Your task to perform on an android device: see creations saved in the google photos Image 0: 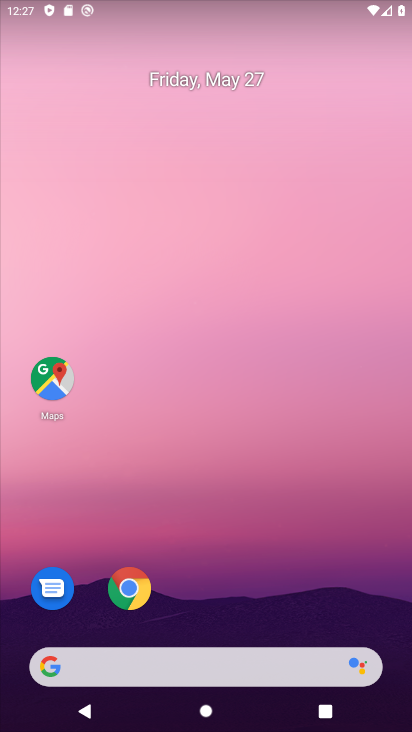
Step 0: drag from (226, 616) to (303, 701)
Your task to perform on an android device: see creations saved in the google photos Image 1: 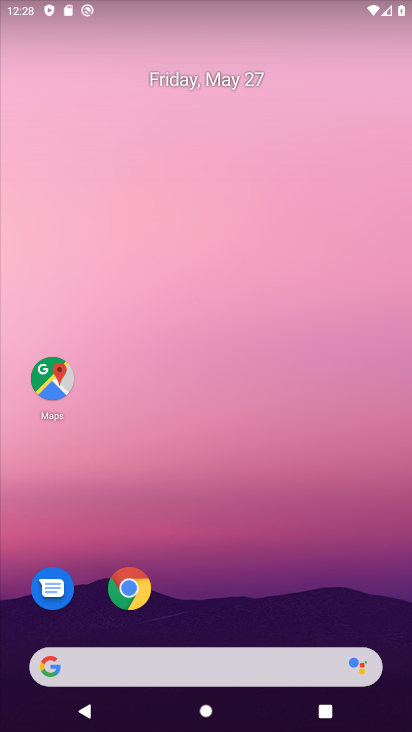
Step 1: drag from (259, 620) to (237, 29)
Your task to perform on an android device: see creations saved in the google photos Image 2: 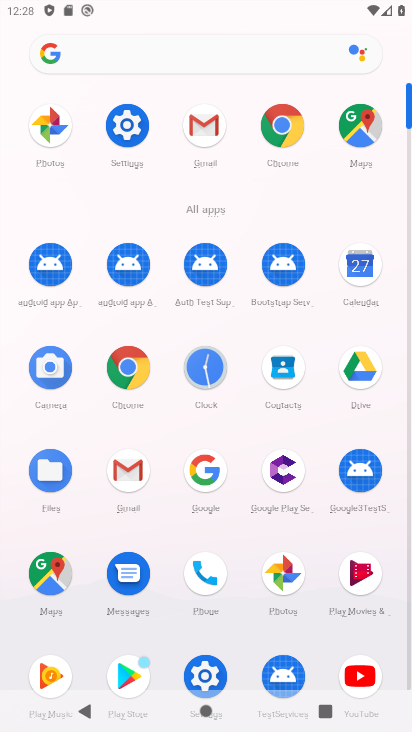
Step 2: click (282, 571)
Your task to perform on an android device: see creations saved in the google photos Image 3: 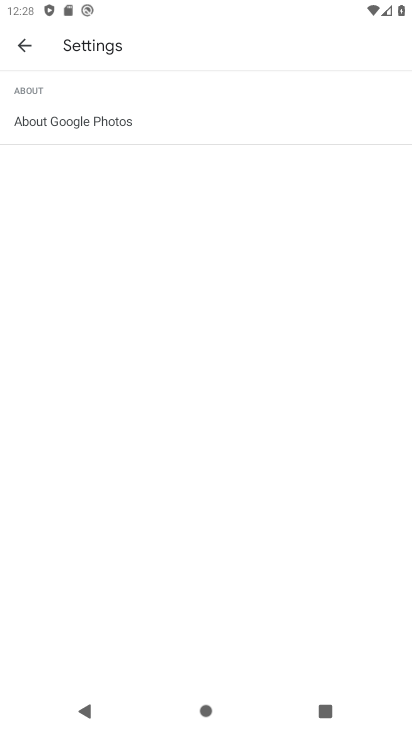
Step 3: click (24, 23)
Your task to perform on an android device: see creations saved in the google photos Image 4: 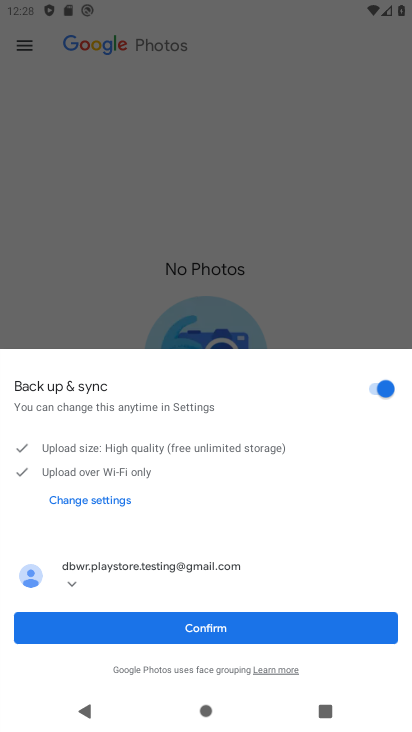
Step 4: click (192, 629)
Your task to perform on an android device: see creations saved in the google photos Image 5: 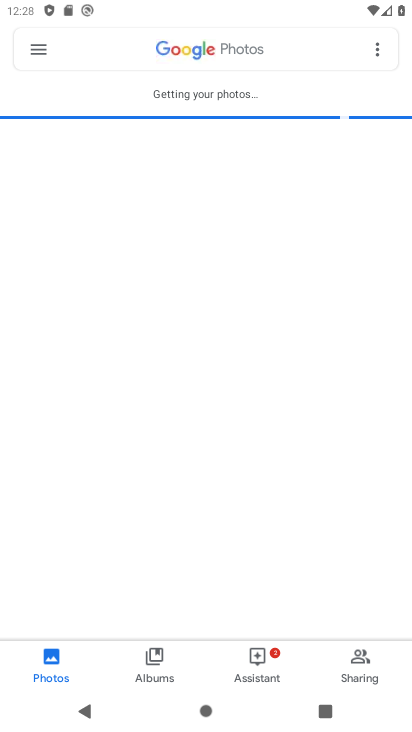
Step 5: click (145, 45)
Your task to perform on an android device: see creations saved in the google photos Image 6: 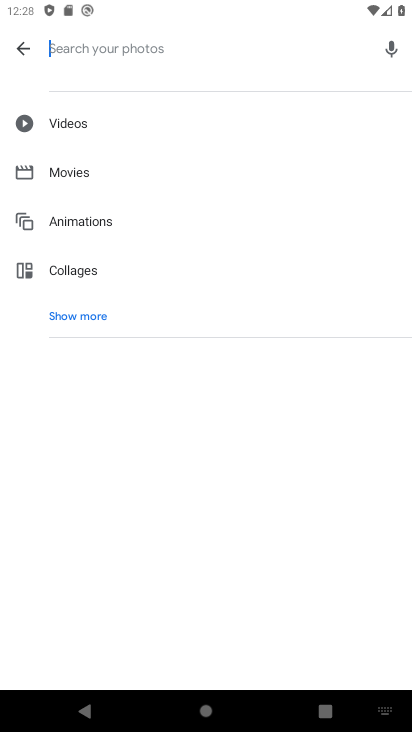
Step 6: click (67, 308)
Your task to perform on an android device: see creations saved in the google photos Image 7: 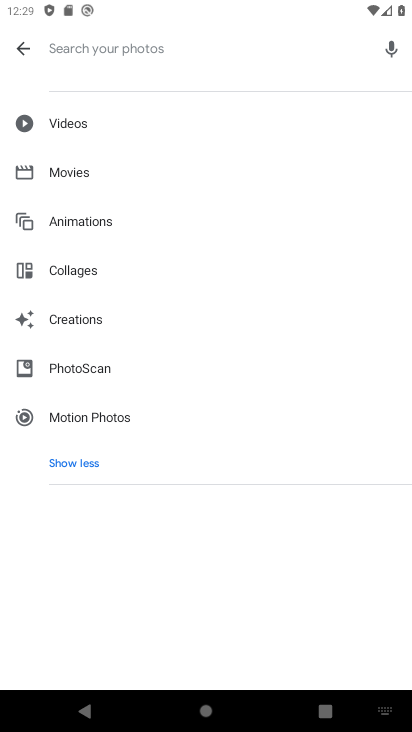
Step 7: click (95, 335)
Your task to perform on an android device: see creations saved in the google photos Image 8: 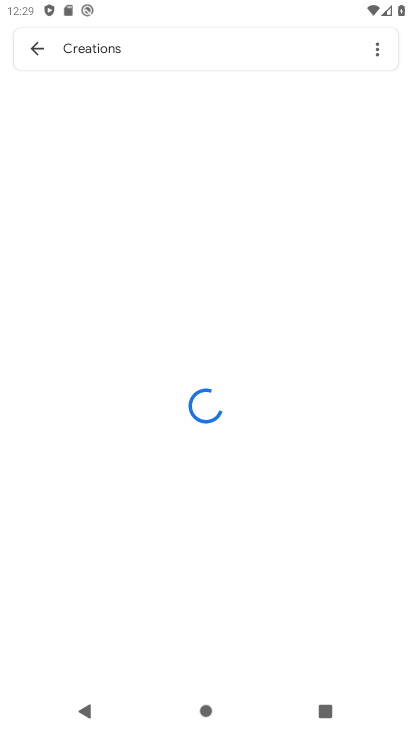
Step 8: task complete